Your task to perform on an android device: Open eBay Image 0: 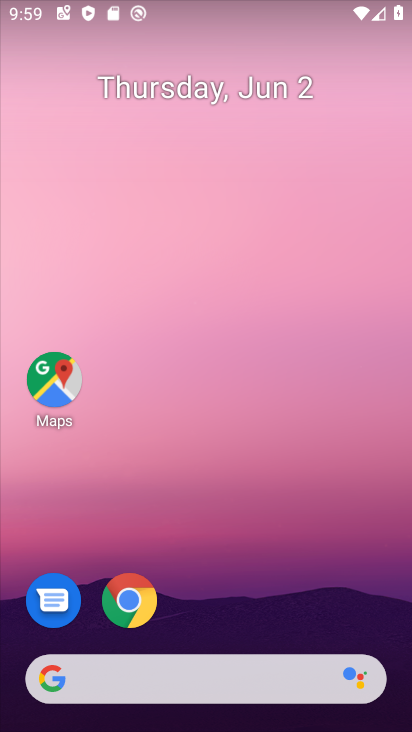
Step 0: click (138, 602)
Your task to perform on an android device: Open eBay Image 1: 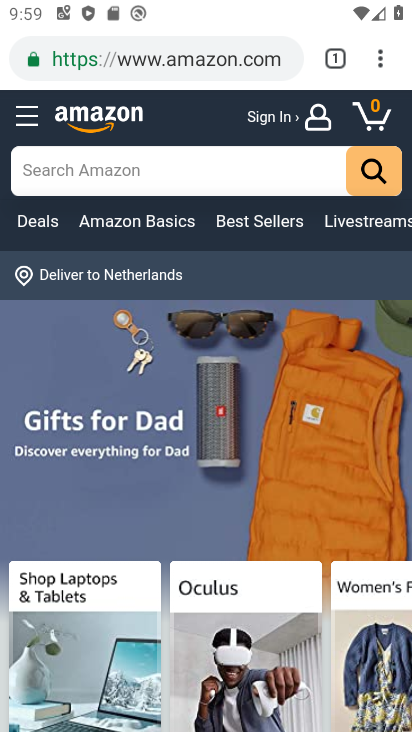
Step 1: click (330, 65)
Your task to perform on an android device: Open eBay Image 2: 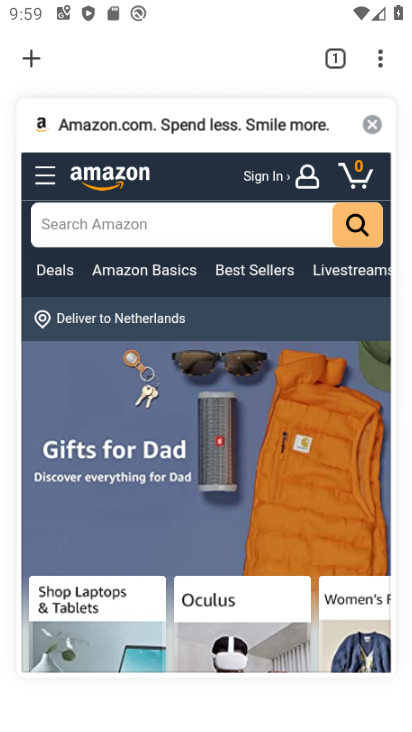
Step 2: click (369, 119)
Your task to perform on an android device: Open eBay Image 3: 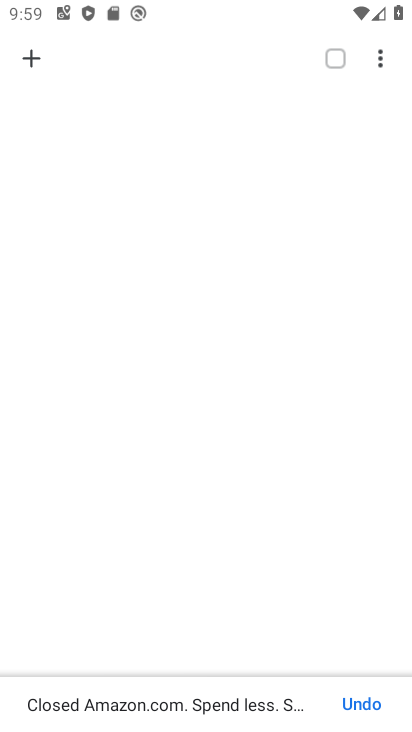
Step 3: click (31, 64)
Your task to perform on an android device: Open eBay Image 4: 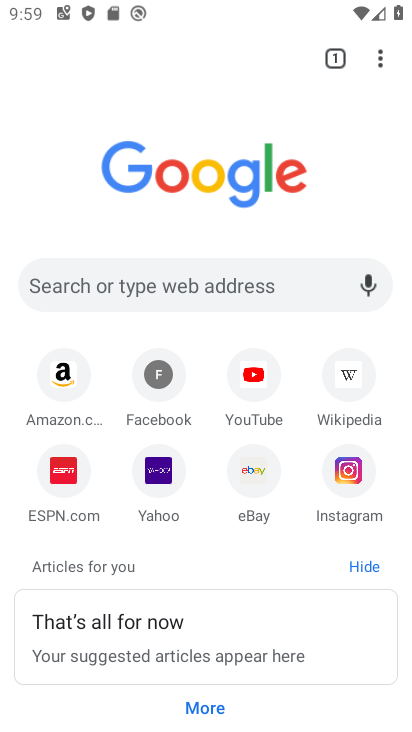
Step 4: click (244, 479)
Your task to perform on an android device: Open eBay Image 5: 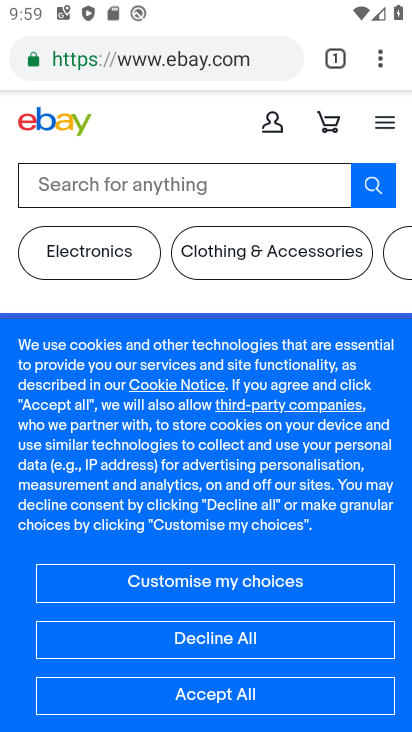
Step 5: click (243, 706)
Your task to perform on an android device: Open eBay Image 6: 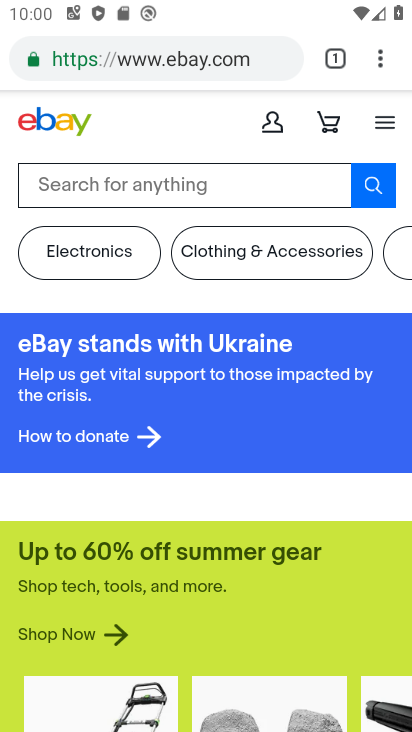
Step 6: task complete